Your task to perform on an android device: Is it going to rain today? Image 0: 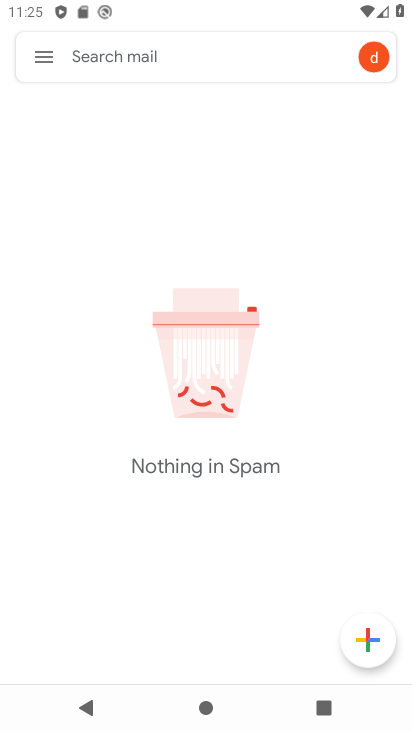
Step 0: press back button
Your task to perform on an android device: Is it going to rain today? Image 1: 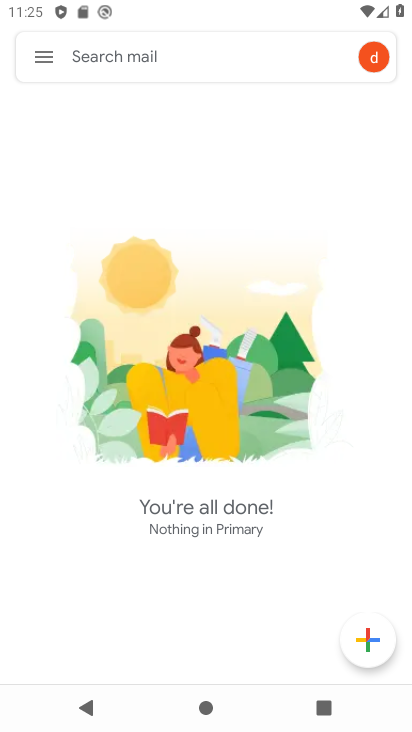
Step 1: press home button
Your task to perform on an android device: Is it going to rain today? Image 2: 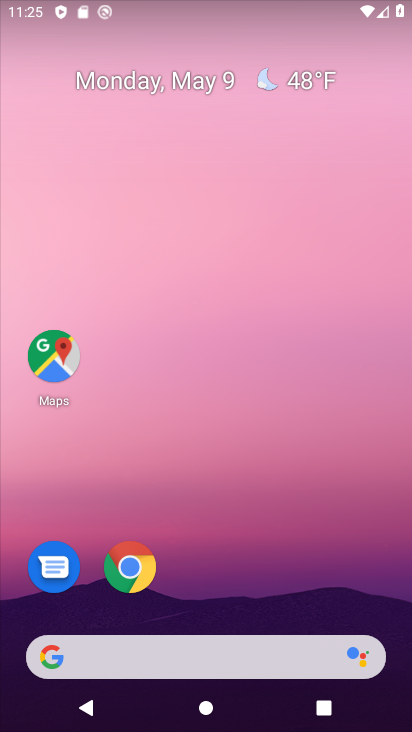
Step 2: click (300, 70)
Your task to perform on an android device: Is it going to rain today? Image 3: 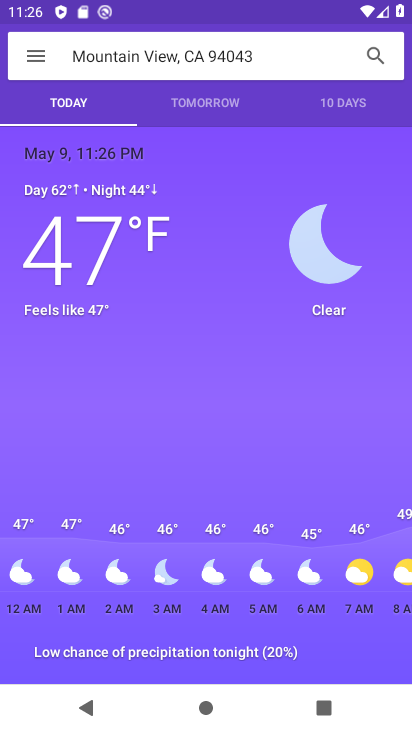
Step 3: task complete